Your task to perform on an android device: clear all cookies in the chrome app Image 0: 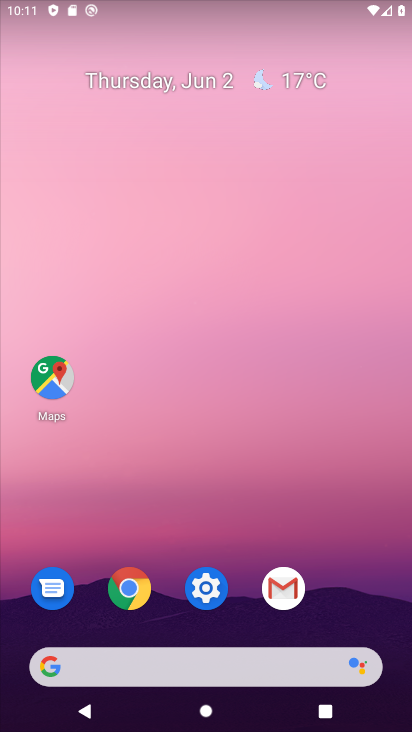
Step 0: drag from (282, 611) to (223, 132)
Your task to perform on an android device: clear all cookies in the chrome app Image 1: 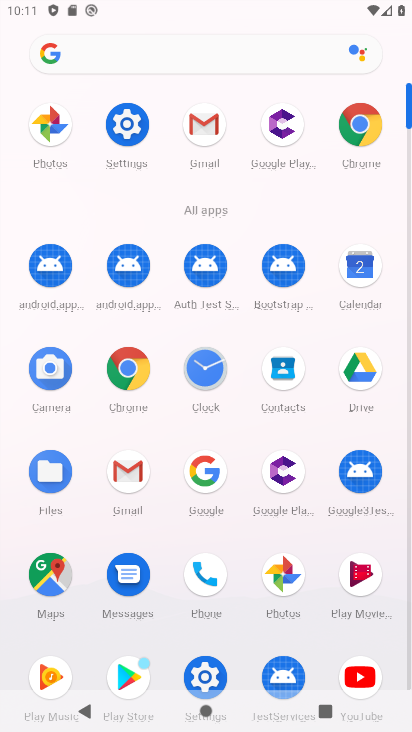
Step 1: click (125, 375)
Your task to perform on an android device: clear all cookies in the chrome app Image 2: 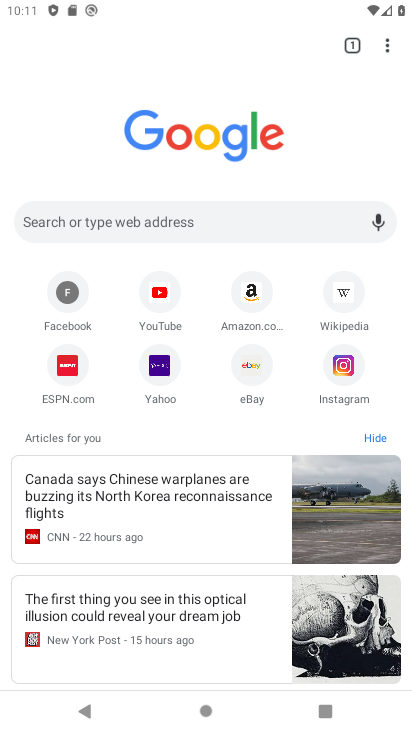
Step 2: click (383, 34)
Your task to perform on an android device: clear all cookies in the chrome app Image 3: 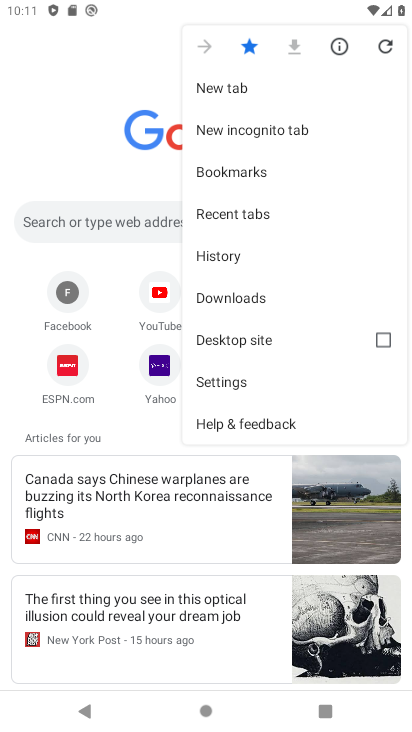
Step 3: click (220, 377)
Your task to perform on an android device: clear all cookies in the chrome app Image 4: 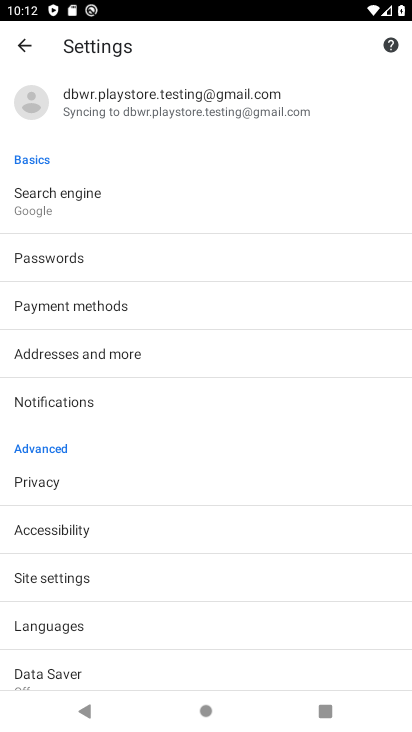
Step 4: drag from (50, 591) to (131, 406)
Your task to perform on an android device: clear all cookies in the chrome app Image 5: 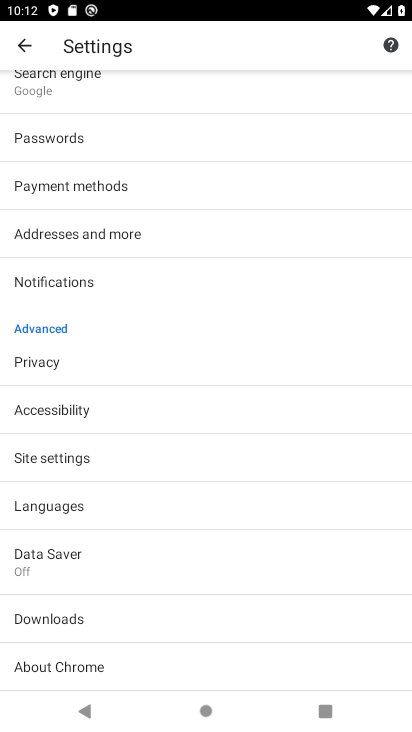
Step 5: click (95, 468)
Your task to perform on an android device: clear all cookies in the chrome app Image 6: 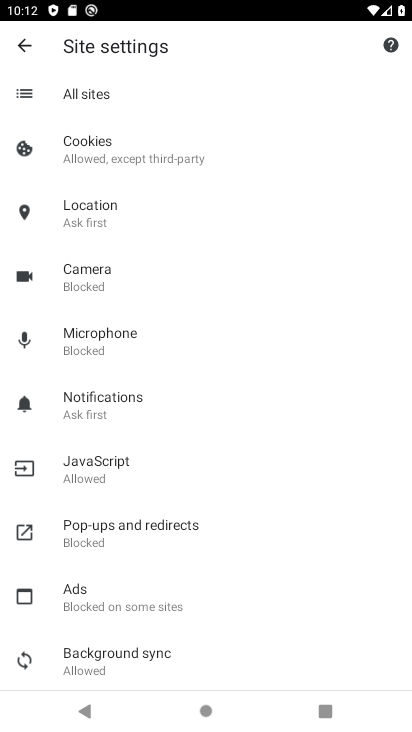
Step 6: click (139, 147)
Your task to perform on an android device: clear all cookies in the chrome app Image 7: 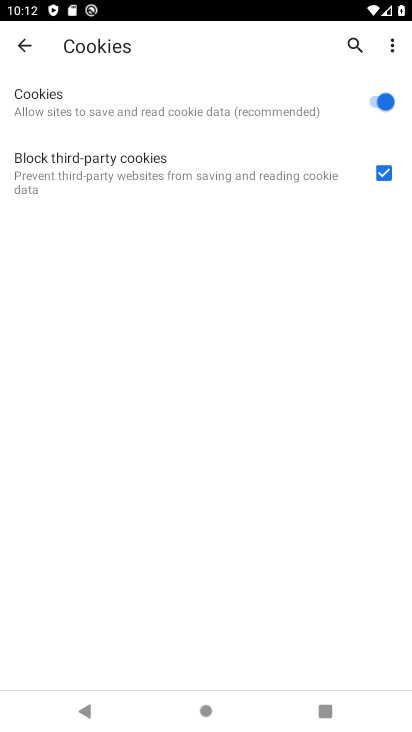
Step 7: click (368, 108)
Your task to perform on an android device: clear all cookies in the chrome app Image 8: 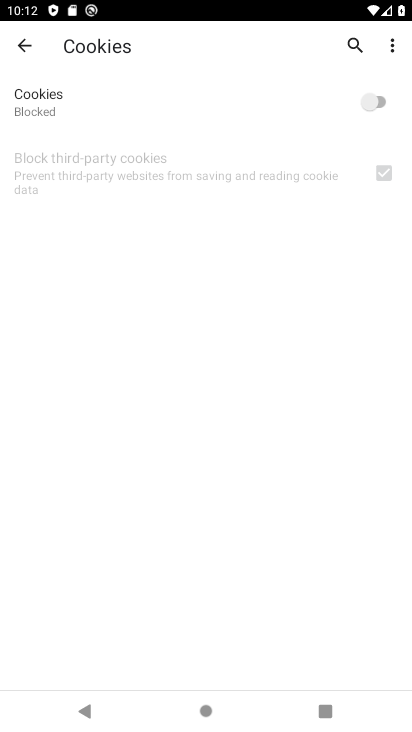
Step 8: click (368, 108)
Your task to perform on an android device: clear all cookies in the chrome app Image 9: 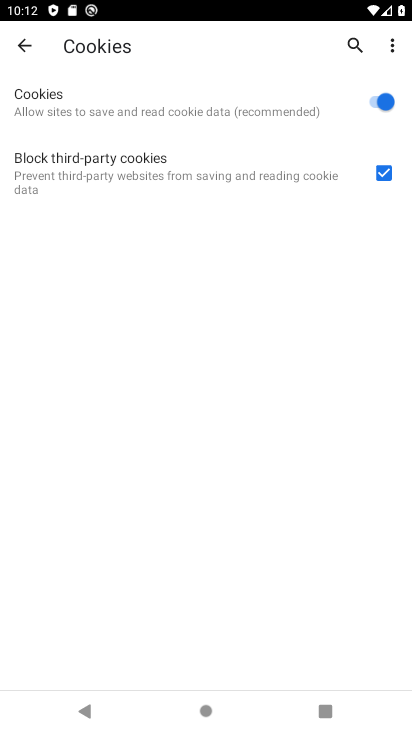
Step 9: task complete